Your task to perform on an android device: add a contact Image 0: 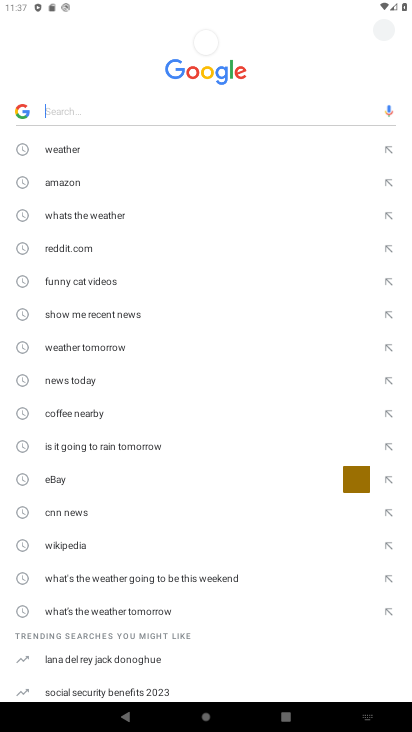
Step 0: press back button
Your task to perform on an android device: add a contact Image 1: 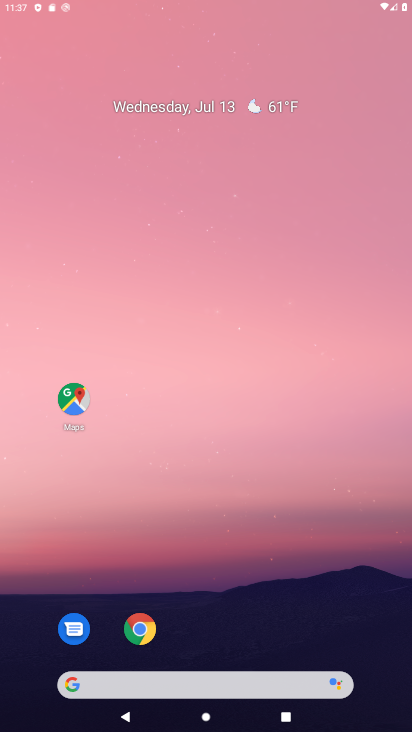
Step 1: press home button
Your task to perform on an android device: add a contact Image 2: 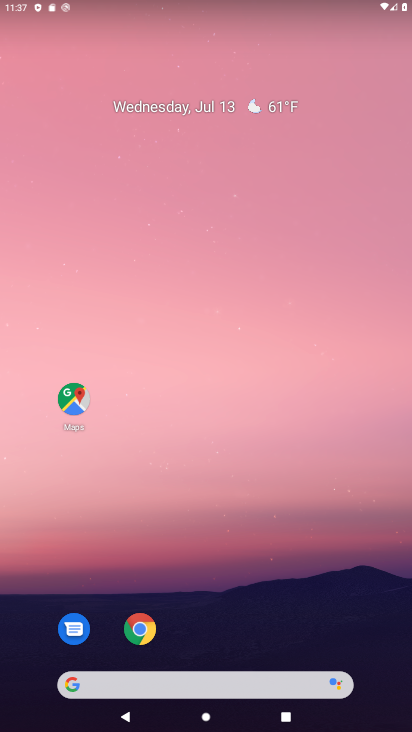
Step 2: drag from (222, 659) to (146, 56)
Your task to perform on an android device: add a contact Image 3: 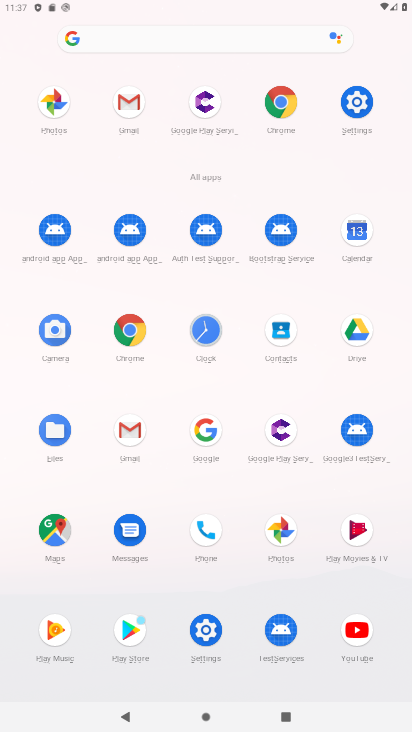
Step 3: click (215, 535)
Your task to perform on an android device: add a contact Image 4: 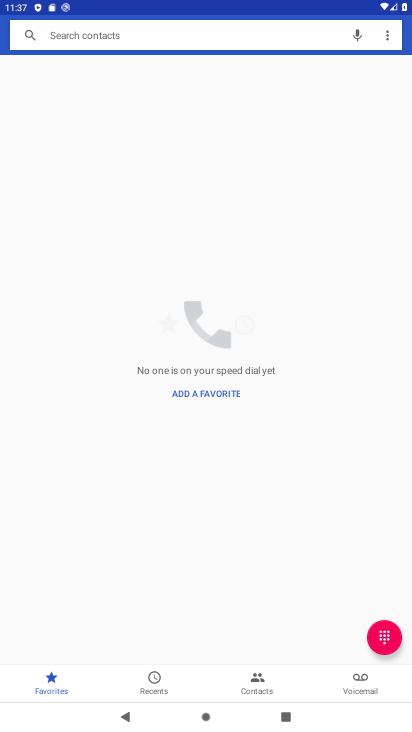
Step 4: click (260, 683)
Your task to perform on an android device: add a contact Image 5: 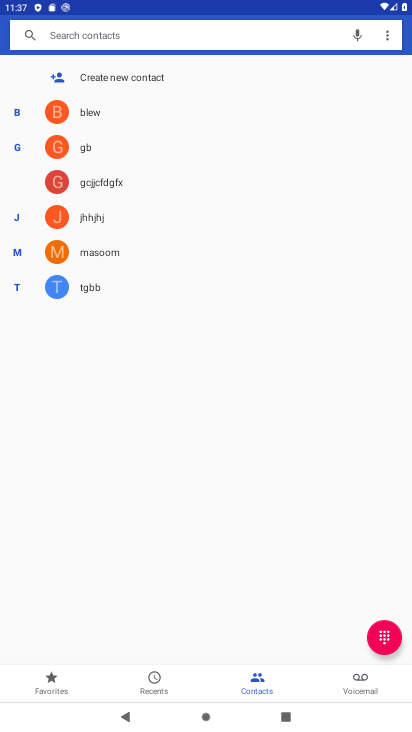
Step 5: click (113, 71)
Your task to perform on an android device: add a contact Image 6: 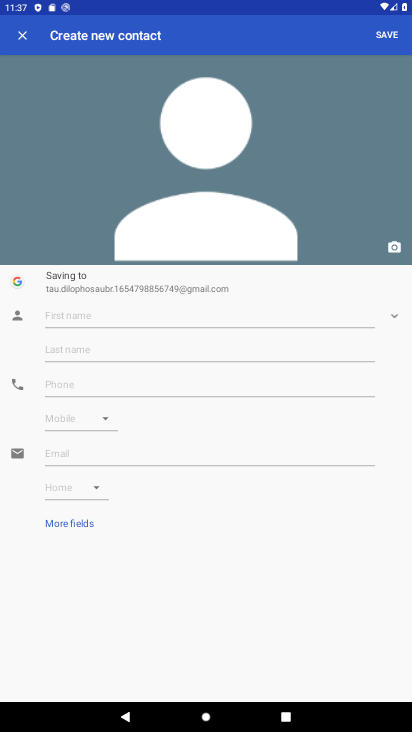
Step 6: click (348, 310)
Your task to perform on an android device: add a contact Image 7: 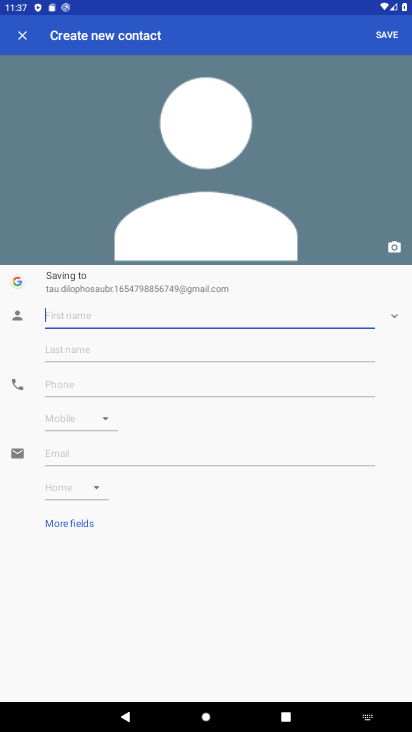
Step 7: type "ddd"
Your task to perform on an android device: add a contact Image 8: 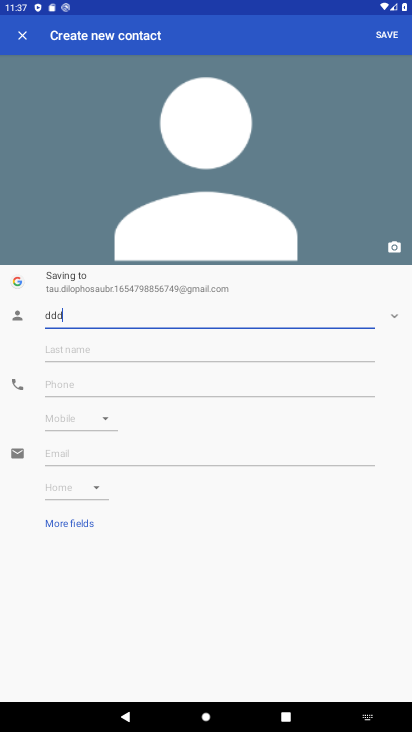
Step 8: click (186, 391)
Your task to perform on an android device: add a contact Image 9: 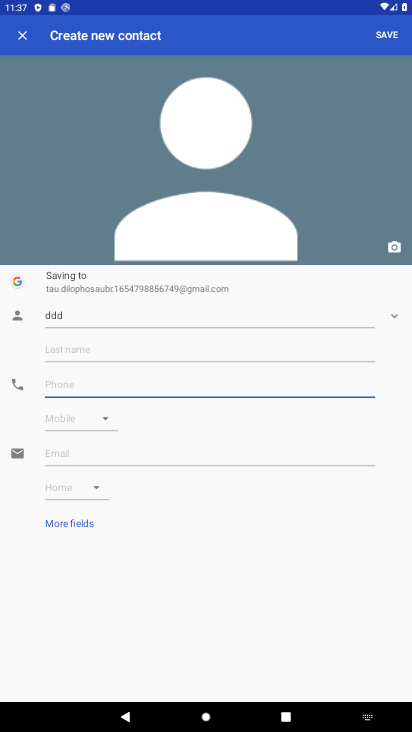
Step 9: type "3333"
Your task to perform on an android device: add a contact Image 10: 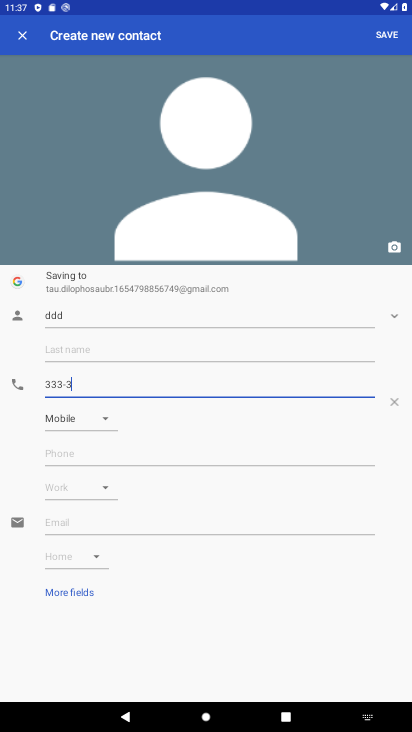
Step 10: click (376, 28)
Your task to perform on an android device: add a contact Image 11: 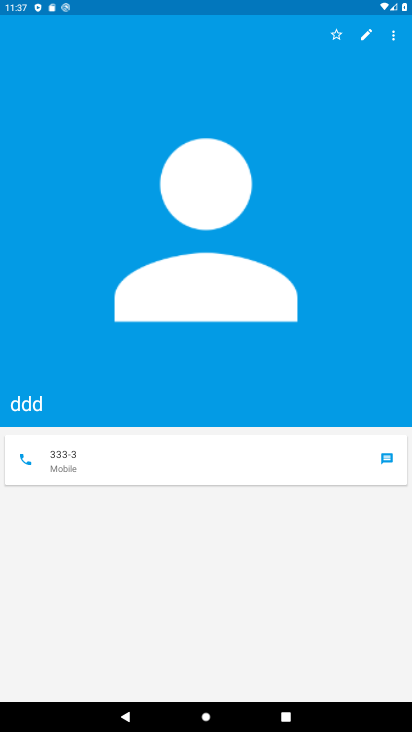
Step 11: task complete